Your task to perform on an android device: What is the recent news? Image 0: 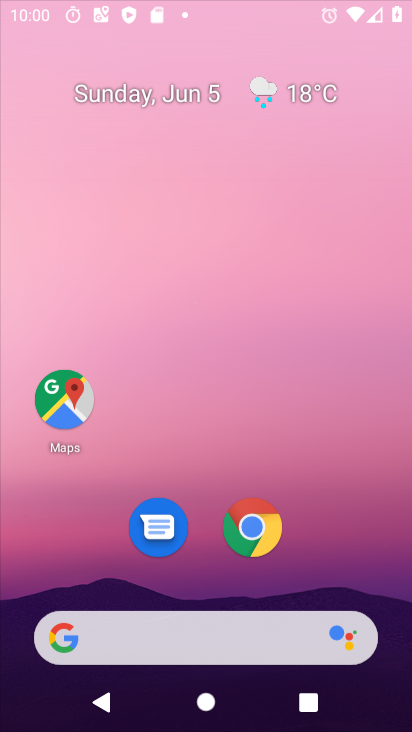
Step 0: drag from (365, 560) to (314, 44)
Your task to perform on an android device: What is the recent news? Image 1: 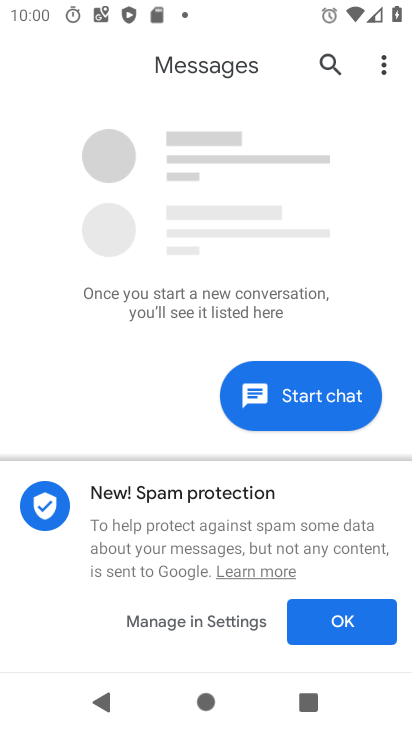
Step 1: press home button
Your task to perform on an android device: What is the recent news? Image 2: 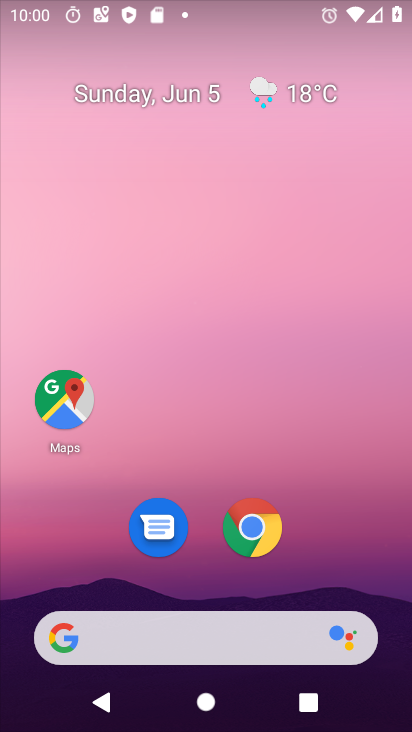
Step 2: drag from (339, 541) to (284, 21)
Your task to perform on an android device: What is the recent news? Image 3: 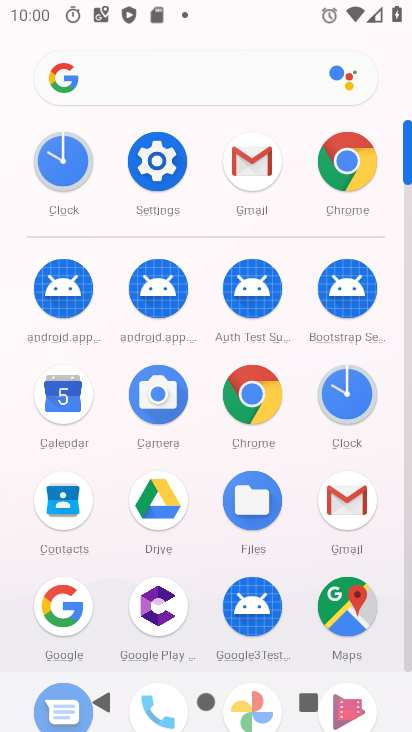
Step 3: click (323, 160)
Your task to perform on an android device: What is the recent news? Image 4: 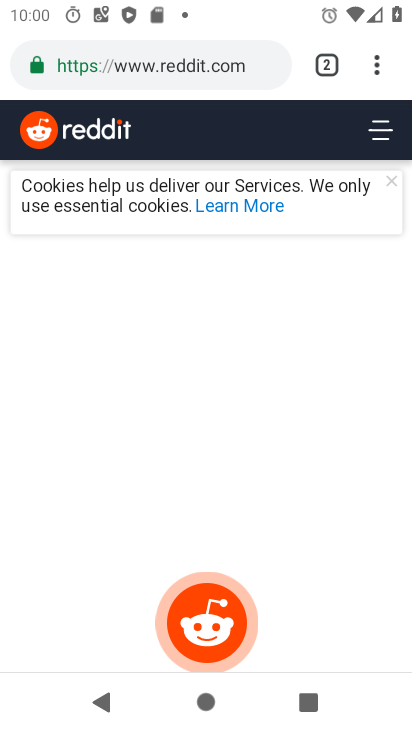
Step 4: drag from (384, 73) to (152, 122)
Your task to perform on an android device: What is the recent news? Image 5: 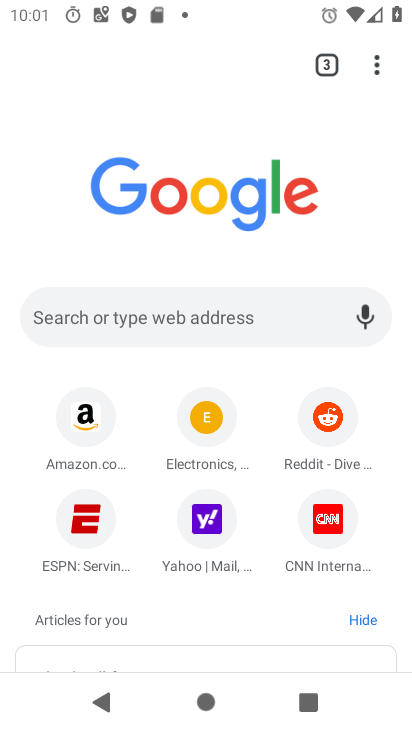
Step 5: drag from (309, 578) to (287, 160)
Your task to perform on an android device: What is the recent news? Image 6: 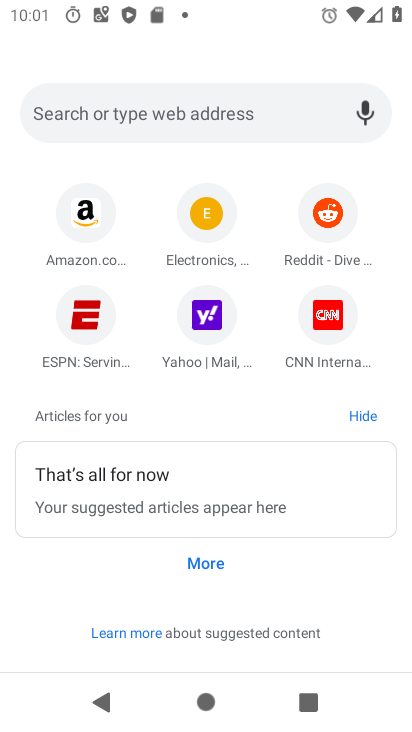
Step 6: drag from (268, 636) to (258, 233)
Your task to perform on an android device: What is the recent news? Image 7: 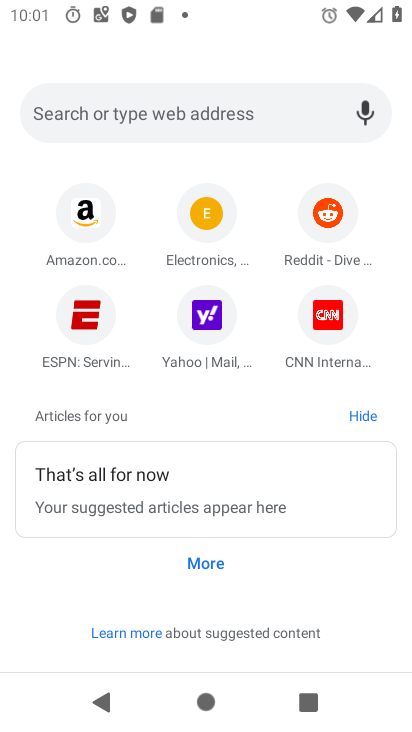
Step 7: click (201, 561)
Your task to perform on an android device: What is the recent news? Image 8: 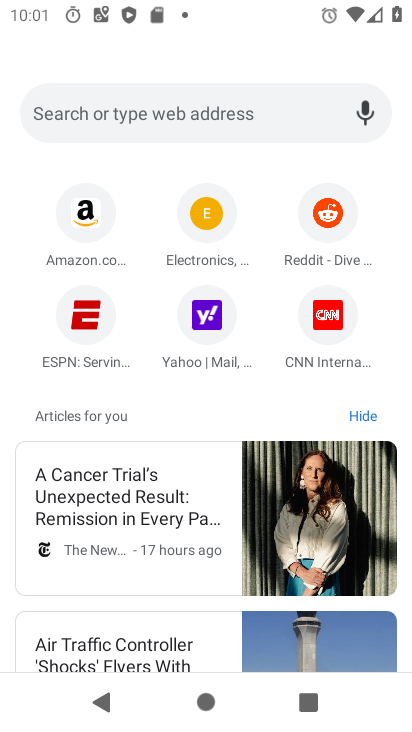
Step 8: task complete